Your task to perform on an android device: Go to accessibility settings Image 0: 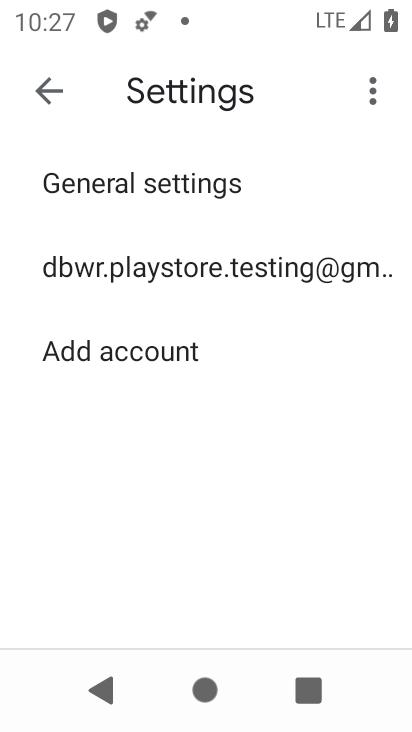
Step 0: press home button
Your task to perform on an android device: Go to accessibility settings Image 1: 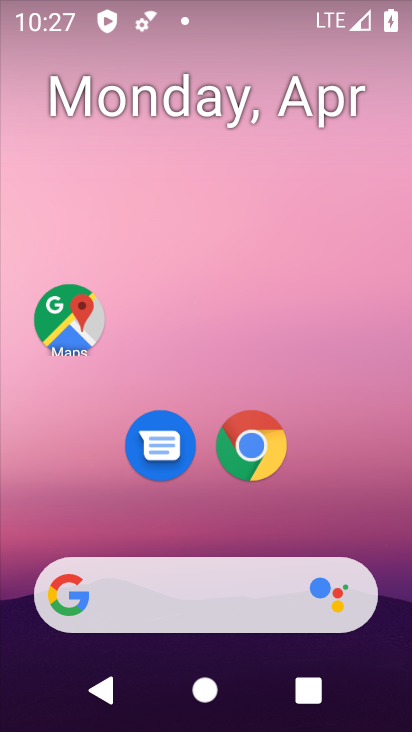
Step 1: drag from (207, 526) to (144, 4)
Your task to perform on an android device: Go to accessibility settings Image 2: 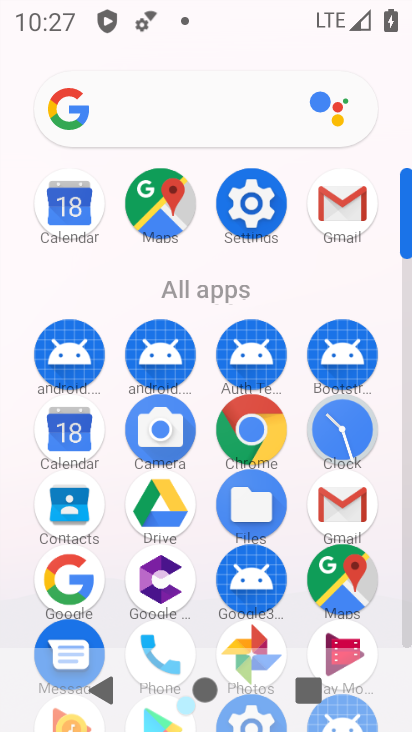
Step 2: click (250, 222)
Your task to perform on an android device: Go to accessibility settings Image 3: 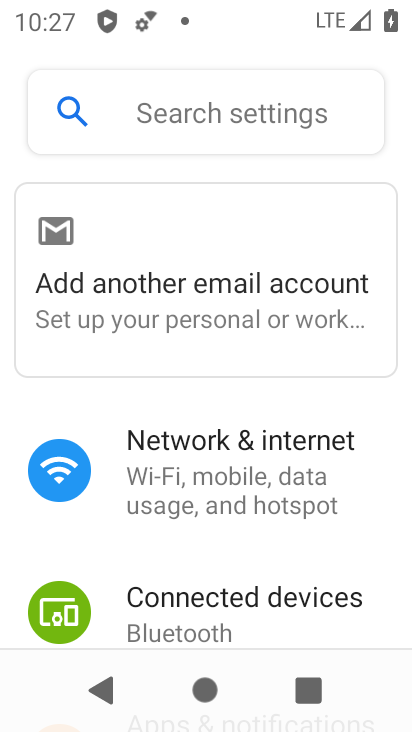
Step 3: drag from (181, 569) to (184, 228)
Your task to perform on an android device: Go to accessibility settings Image 4: 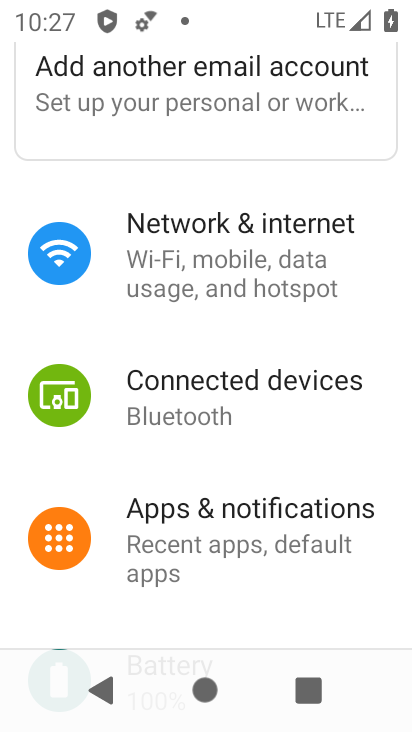
Step 4: drag from (250, 568) to (258, 192)
Your task to perform on an android device: Go to accessibility settings Image 5: 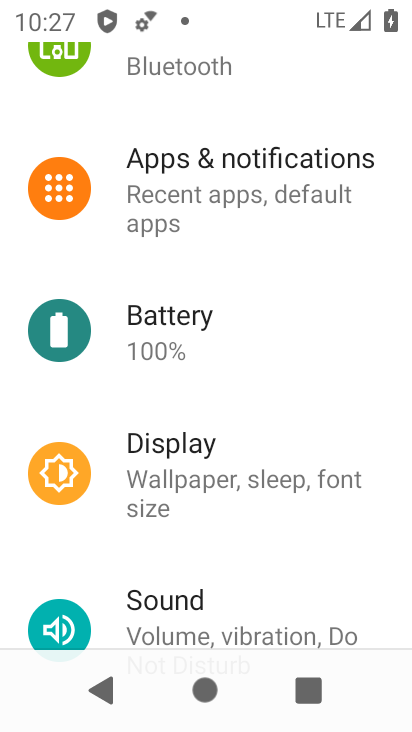
Step 5: drag from (186, 624) to (139, 276)
Your task to perform on an android device: Go to accessibility settings Image 6: 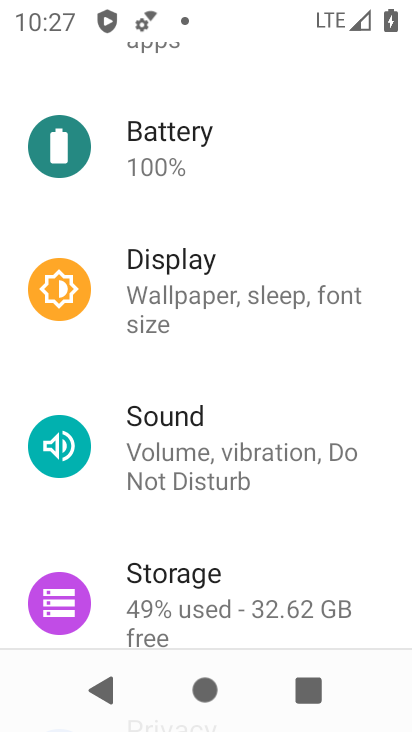
Step 6: drag from (189, 602) to (212, 270)
Your task to perform on an android device: Go to accessibility settings Image 7: 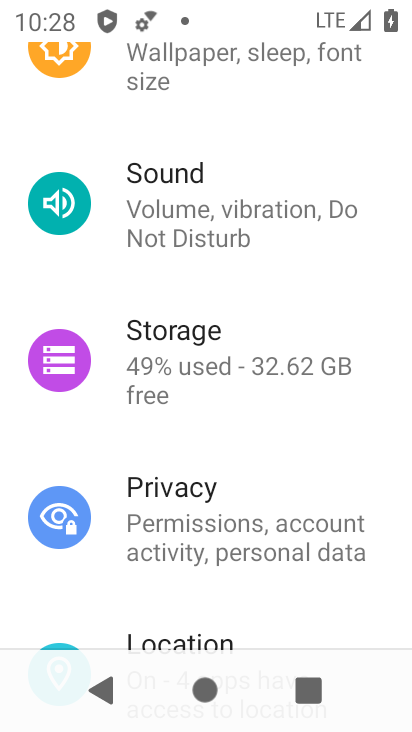
Step 7: drag from (231, 622) to (258, 239)
Your task to perform on an android device: Go to accessibility settings Image 8: 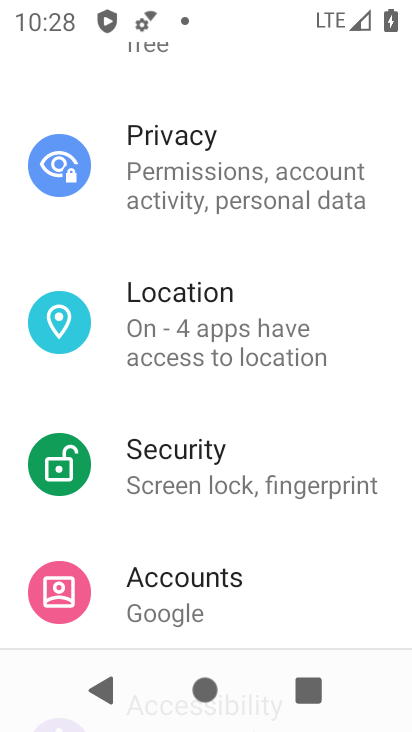
Step 8: drag from (242, 604) to (212, 250)
Your task to perform on an android device: Go to accessibility settings Image 9: 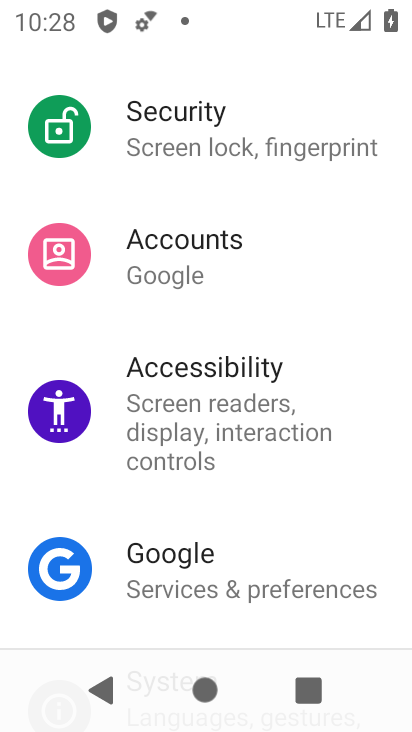
Step 9: click (190, 400)
Your task to perform on an android device: Go to accessibility settings Image 10: 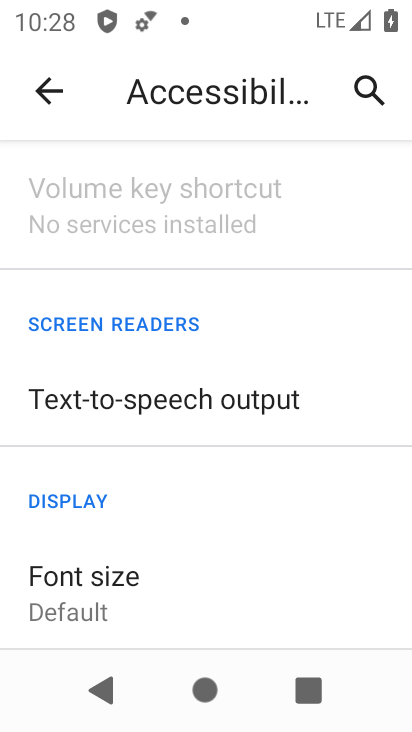
Step 10: task complete